Your task to perform on an android device: turn off airplane mode Image 0: 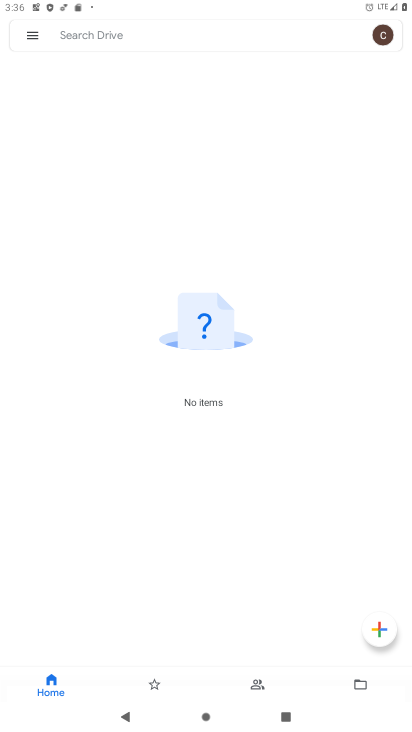
Step 0: press home button
Your task to perform on an android device: turn off airplane mode Image 1: 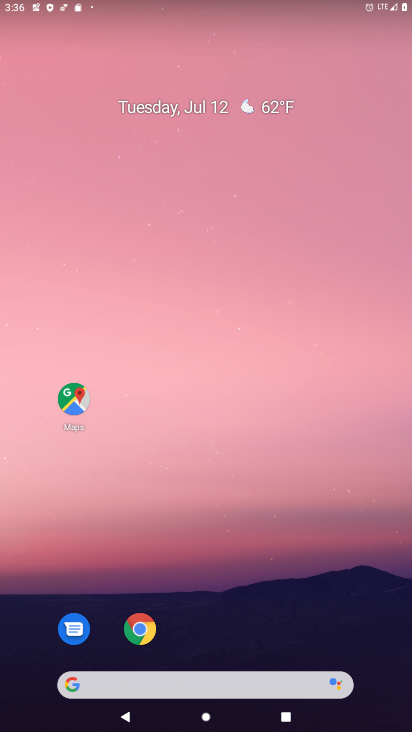
Step 1: drag from (188, 666) to (121, 102)
Your task to perform on an android device: turn off airplane mode Image 2: 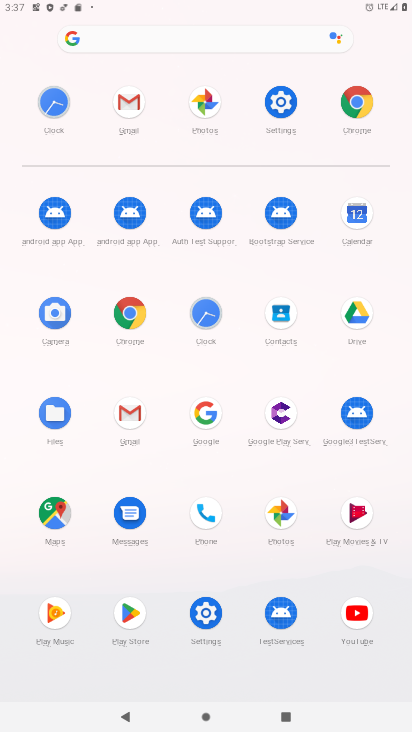
Step 2: click (269, 100)
Your task to perform on an android device: turn off airplane mode Image 3: 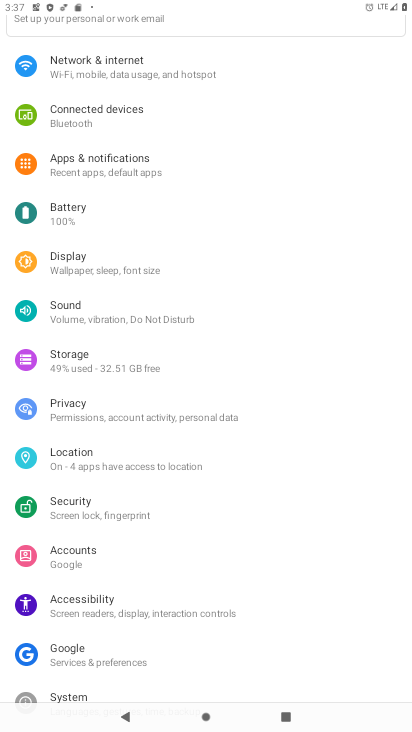
Step 3: drag from (117, 71) to (115, 254)
Your task to perform on an android device: turn off airplane mode Image 4: 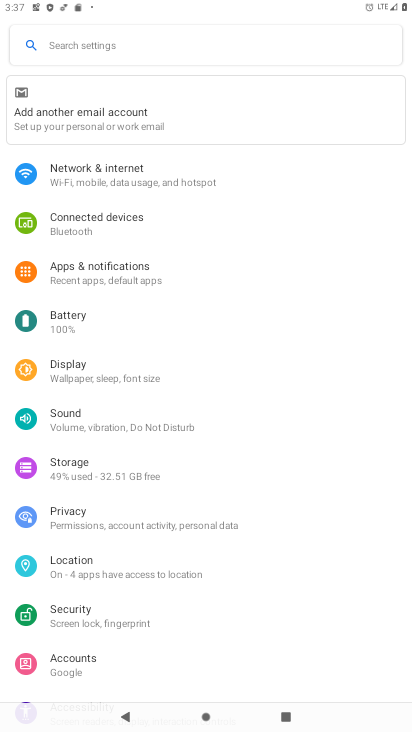
Step 4: click (112, 173)
Your task to perform on an android device: turn off airplane mode Image 5: 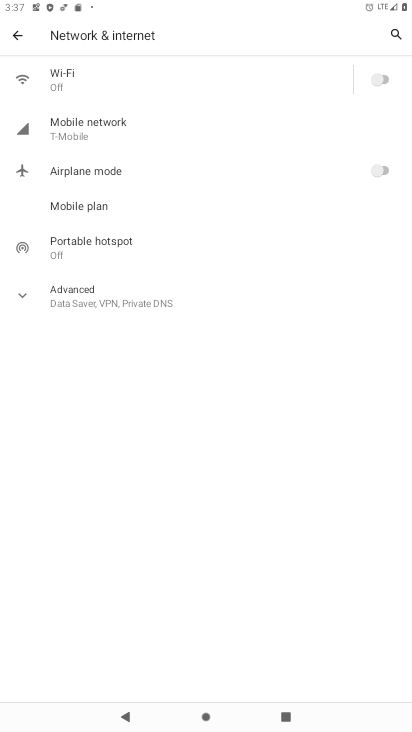
Step 5: task complete